Your task to perform on an android device: Go to privacy settings Image 0: 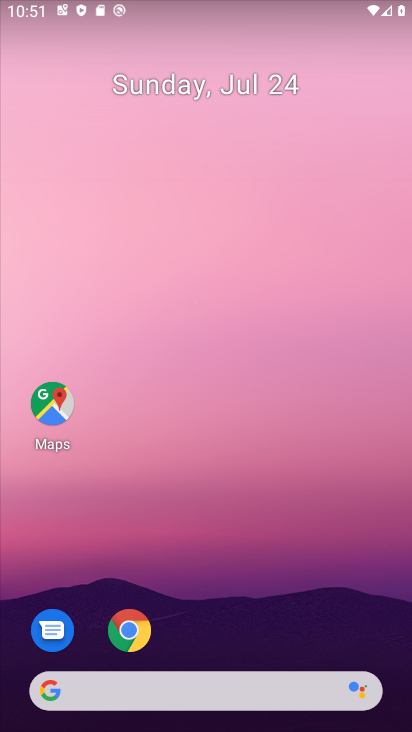
Step 0: drag from (183, 660) to (199, 82)
Your task to perform on an android device: Go to privacy settings Image 1: 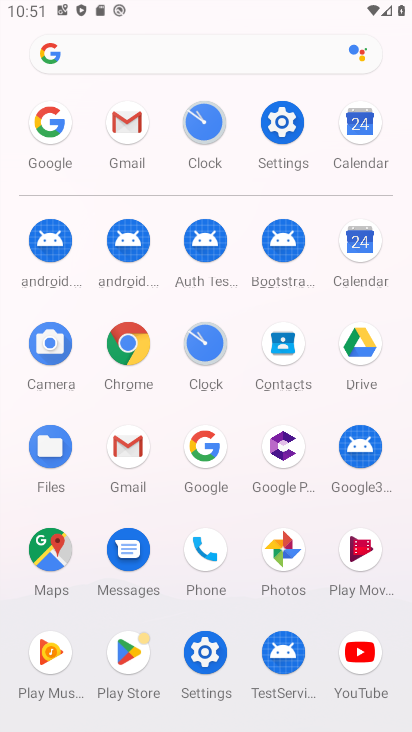
Step 1: click (272, 143)
Your task to perform on an android device: Go to privacy settings Image 2: 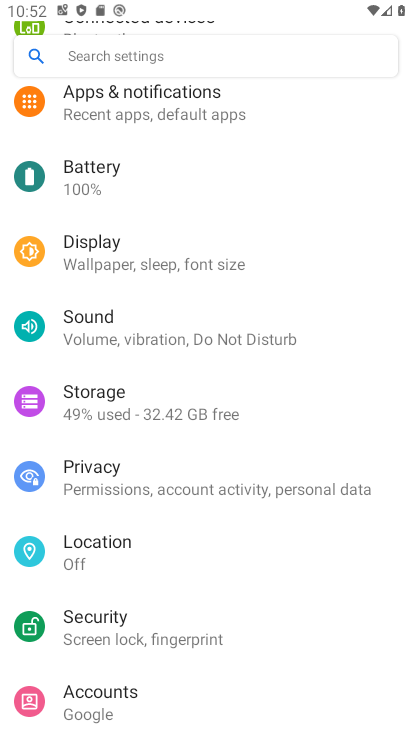
Step 2: click (155, 499)
Your task to perform on an android device: Go to privacy settings Image 3: 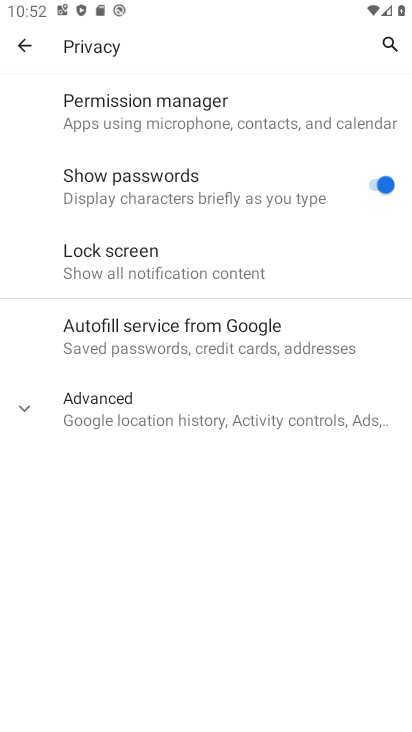
Step 3: task complete